Your task to perform on an android device: empty trash in google photos Image 0: 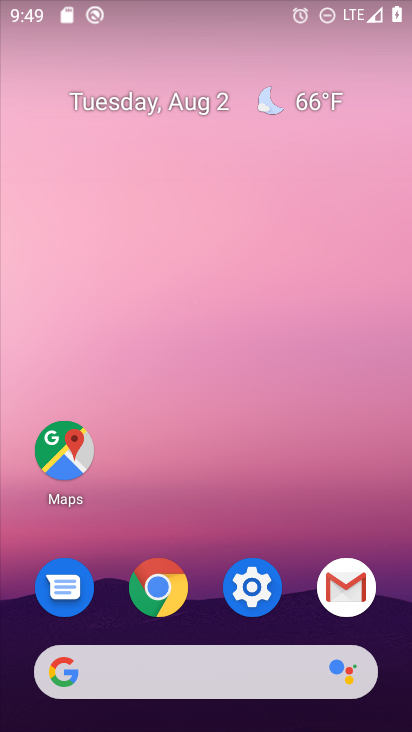
Step 0: drag from (293, 692) to (262, 256)
Your task to perform on an android device: empty trash in google photos Image 1: 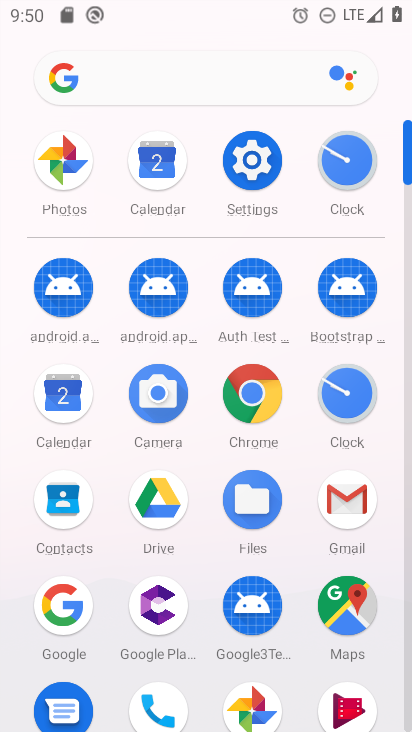
Step 1: click (248, 709)
Your task to perform on an android device: empty trash in google photos Image 2: 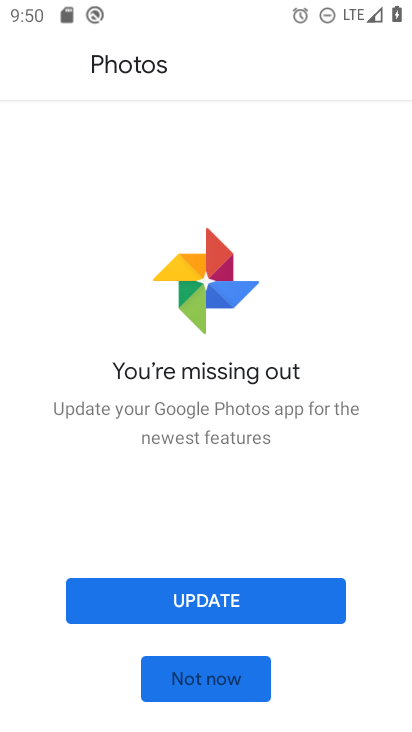
Step 2: click (186, 604)
Your task to perform on an android device: empty trash in google photos Image 3: 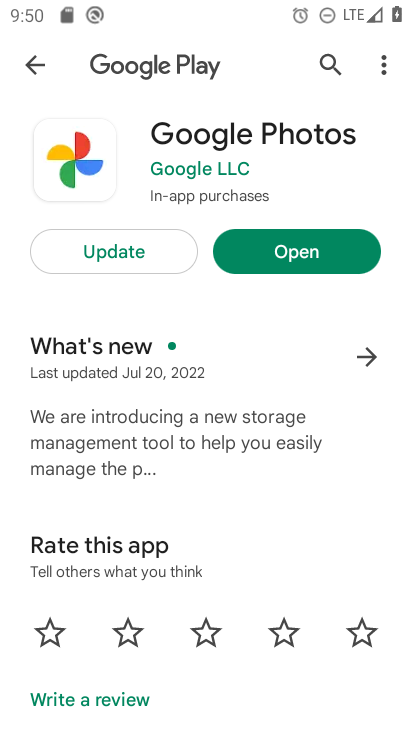
Step 3: click (106, 256)
Your task to perform on an android device: empty trash in google photos Image 4: 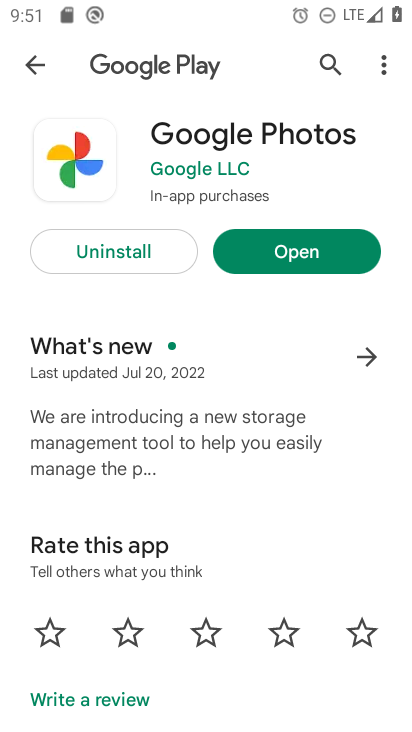
Step 4: click (283, 259)
Your task to perform on an android device: empty trash in google photos Image 5: 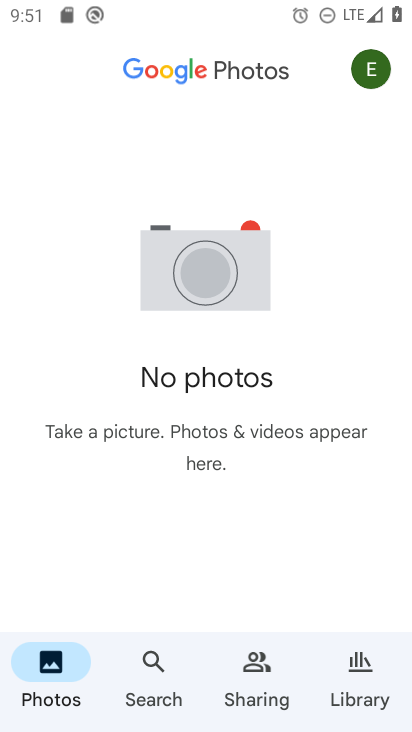
Step 5: click (158, 657)
Your task to perform on an android device: empty trash in google photos Image 6: 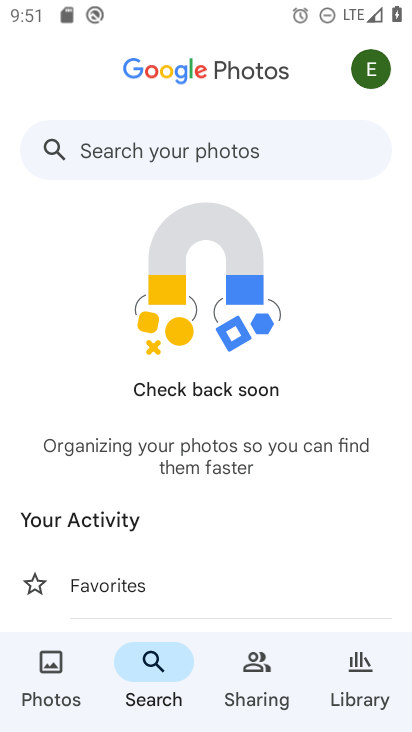
Step 6: click (155, 131)
Your task to perform on an android device: empty trash in google photos Image 7: 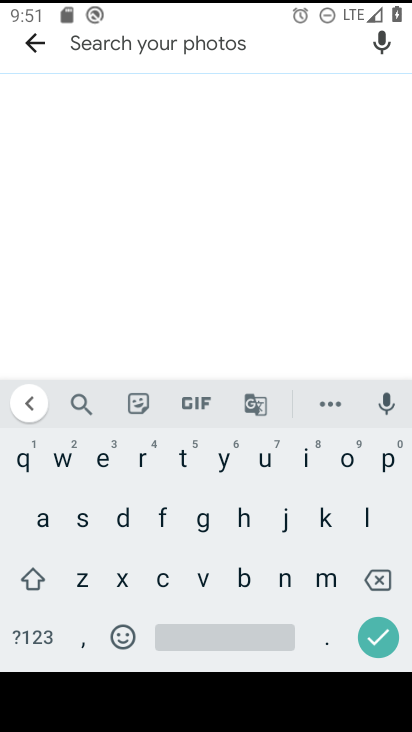
Step 7: click (188, 451)
Your task to perform on an android device: empty trash in google photos Image 8: 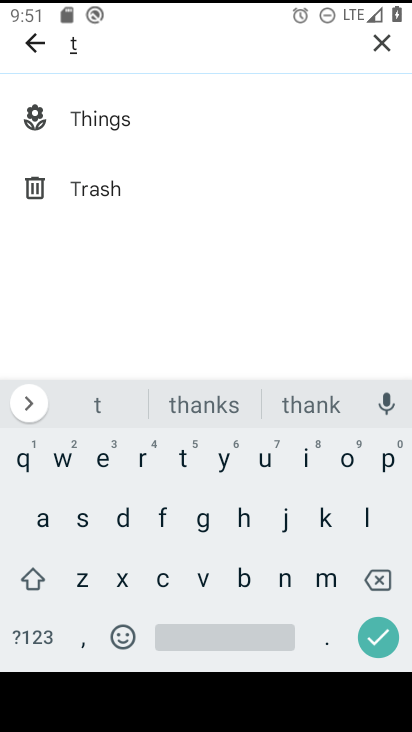
Step 8: click (123, 181)
Your task to perform on an android device: empty trash in google photos Image 9: 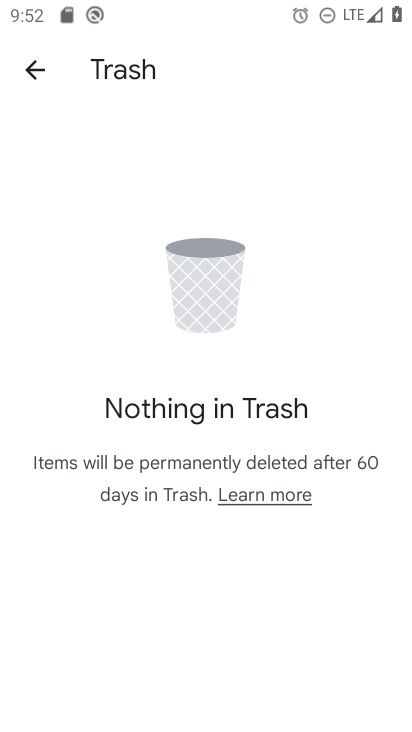
Step 9: task complete